Your task to perform on an android device: Do I have any events tomorrow? Image 0: 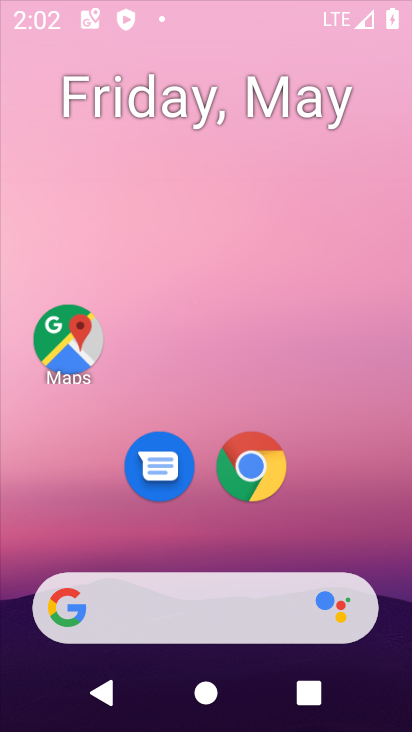
Step 0: click (321, 87)
Your task to perform on an android device: Do I have any events tomorrow? Image 1: 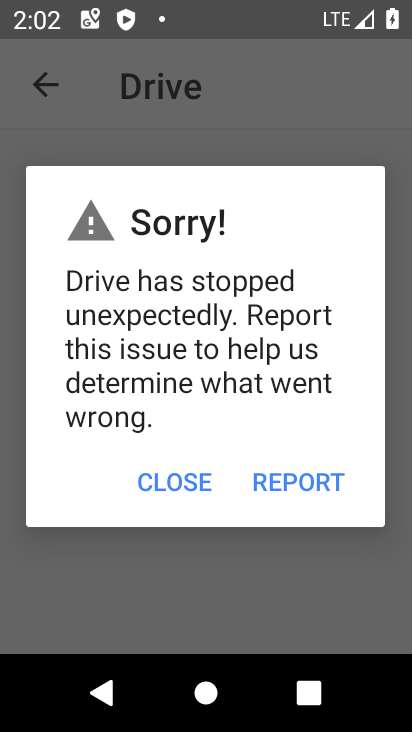
Step 1: press home button
Your task to perform on an android device: Do I have any events tomorrow? Image 2: 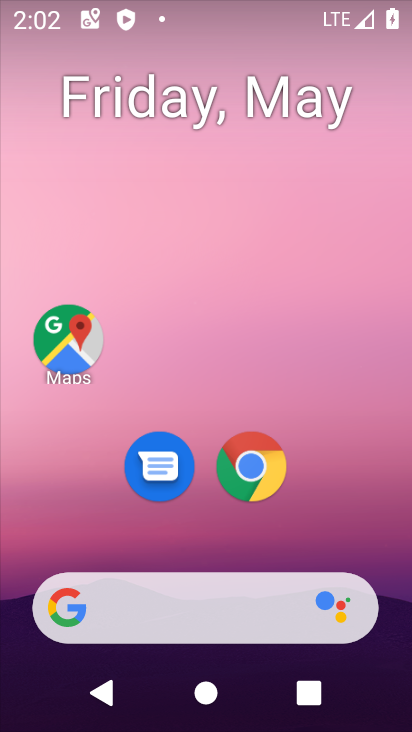
Step 2: drag from (320, 513) to (333, 100)
Your task to perform on an android device: Do I have any events tomorrow? Image 3: 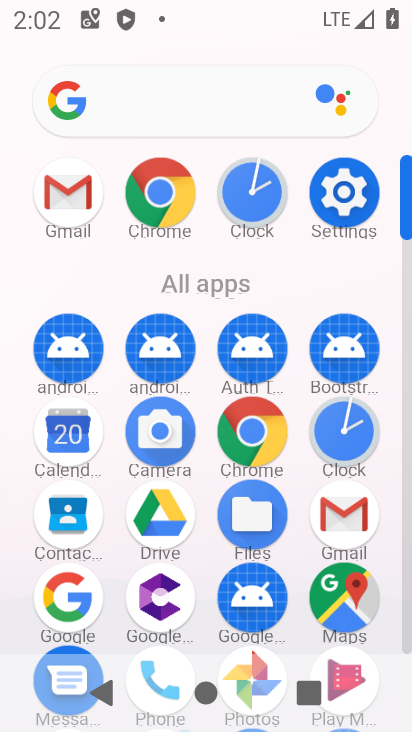
Step 3: click (56, 440)
Your task to perform on an android device: Do I have any events tomorrow? Image 4: 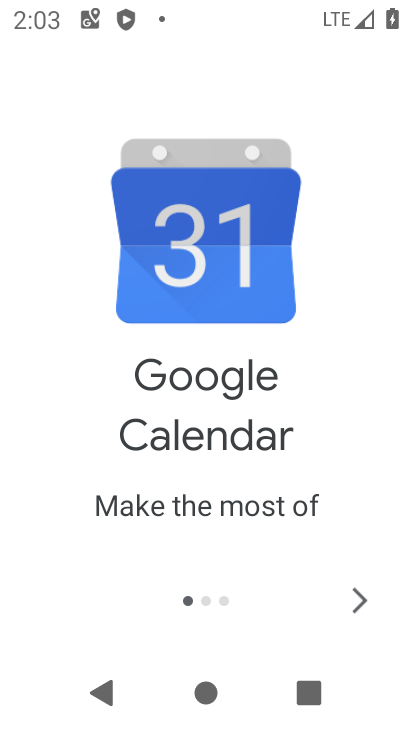
Step 4: click (352, 594)
Your task to perform on an android device: Do I have any events tomorrow? Image 5: 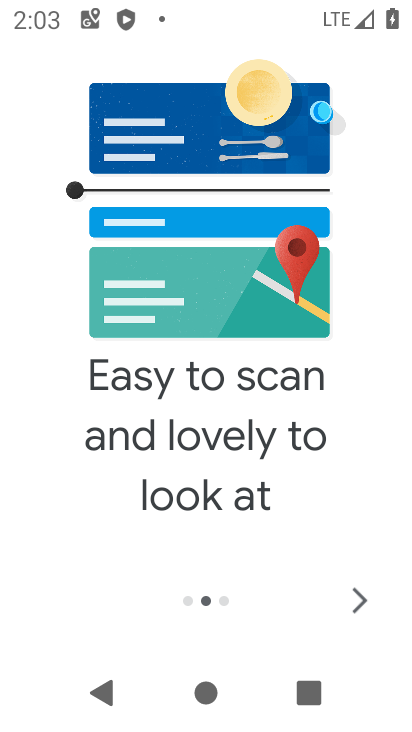
Step 5: click (352, 594)
Your task to perform on an android device: Do I have any events tomorrow? Image 6: 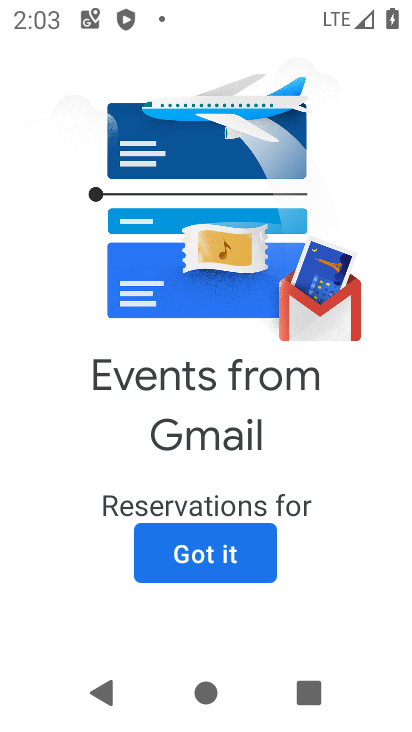
Step 6: click (230, 548)
Your task to perform on an android device: Do I have any events tomorrow? Image 7: 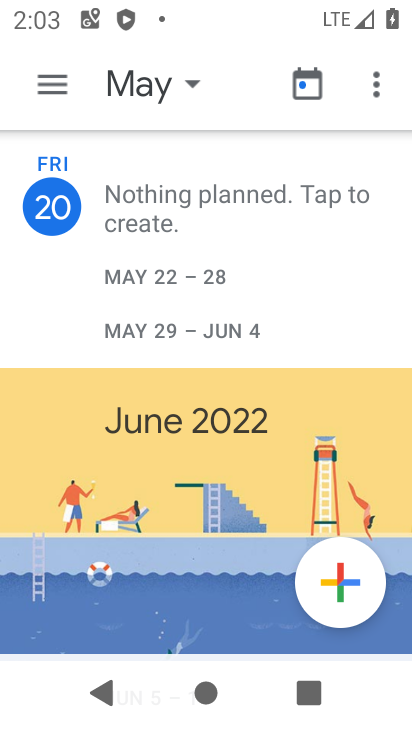
Step 7: click (230, 548)
Your task to perform on an android device: Do I have any events tomorrow? Image 8: 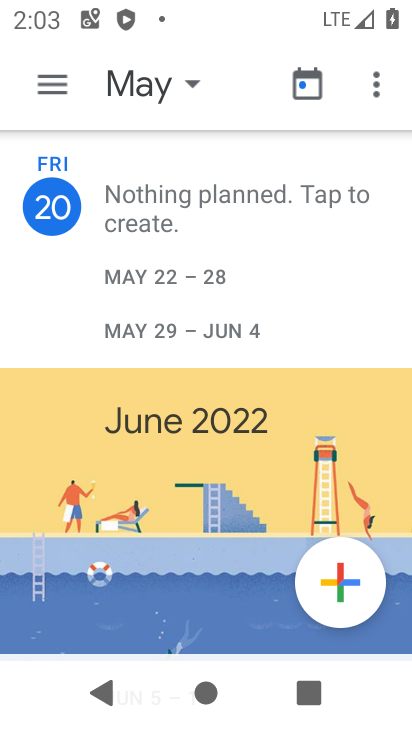
Step 8: click (143, 85)
Your task to perform on an android device: Do I have any events tomorrow? Image 9: 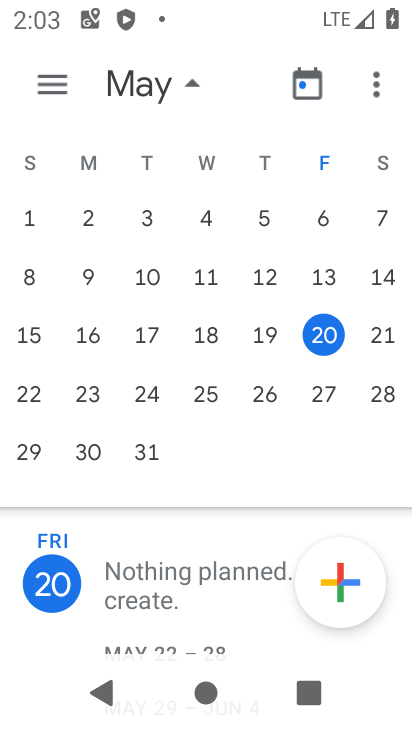
Step 9: click (368, 332)
Your task to perform on an android device: Do I have any events tomorrow? Image 10: 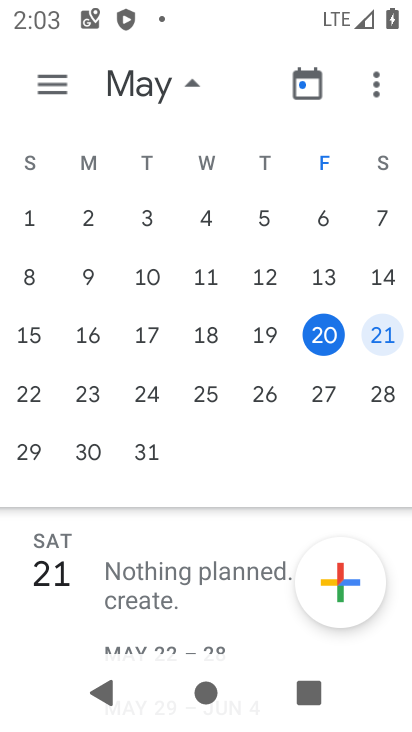
Step 10: task complete